Your task to perform on an android device: Go to wifi settings Image 0: 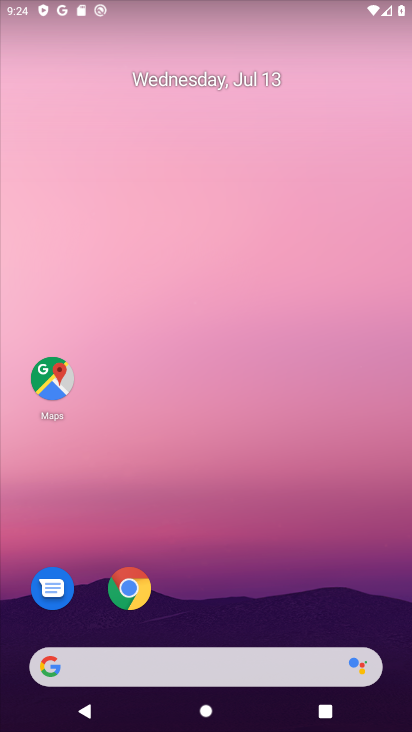
Step 0: drag from (210, 607) to (263, 73)
Your task to perform on an android device: Go to wifi settings Image 1: 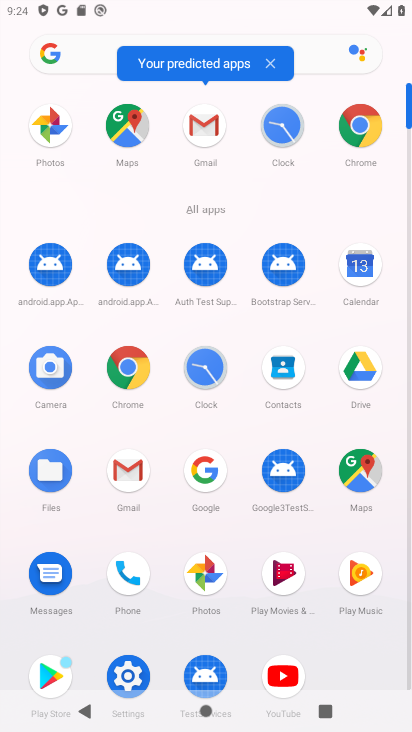
Step 1: click (133, 670)
Your task to perform on an android device: Go to wifi settings Image 2: 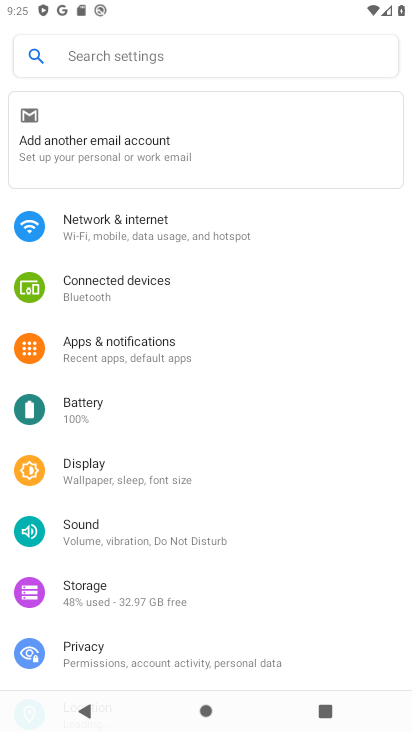
Step 2: click (138, 220)
Your task to perform on an android device: Go to wifi settings Image 3: 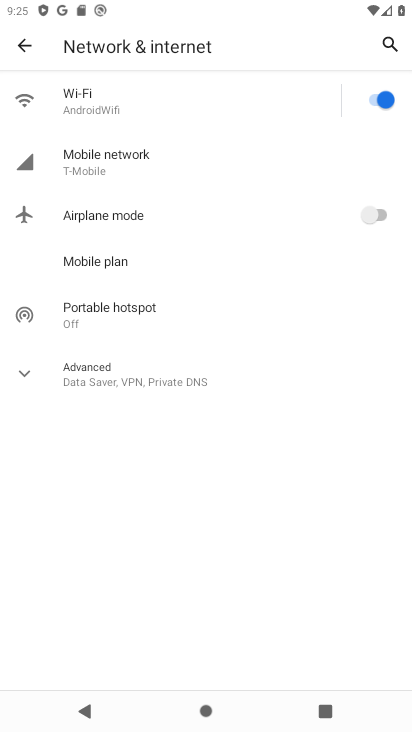
Step 3: click (132, 98)
Your task to perform on an android device: Go to wifi settings Image 4: 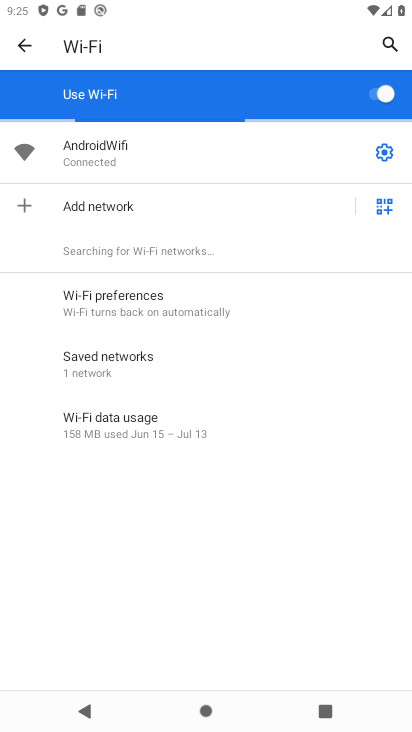
Step 4: click (172, 151)
Your task to perform on an android device: Go to wifi settings Image 5: 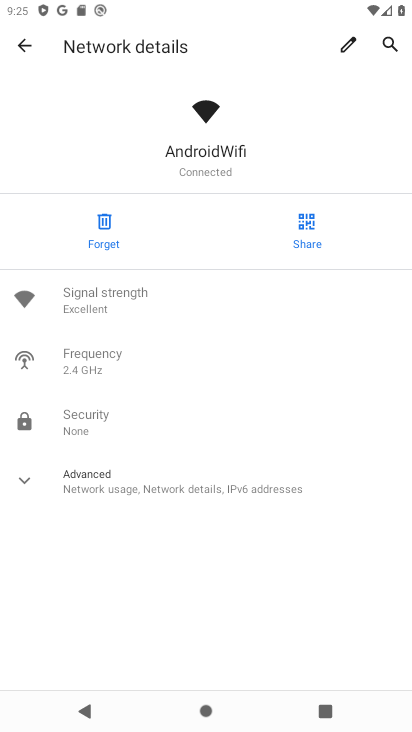
Step 5: task complete